Your task to perform on an android device: open chrome privacy settings Image 0: 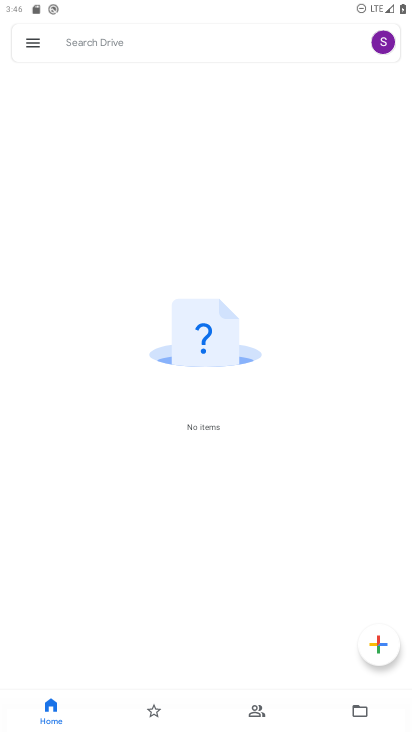
Step 0: press home button
Your task to perform on an android device: open chrome privacy settings Image 1: 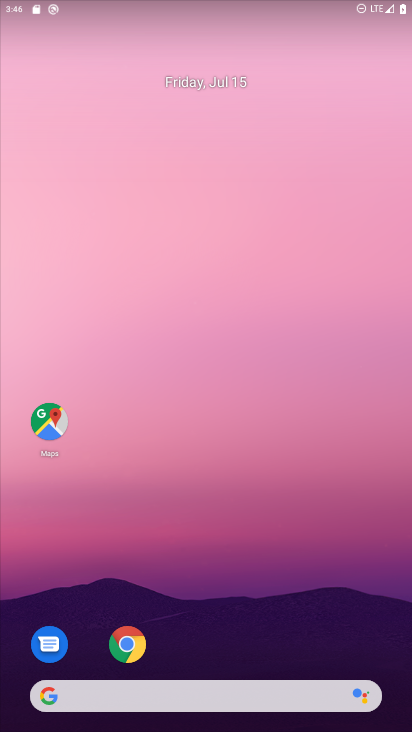
Step 1: drag from (59, 509) to (291, 3)
Your task to perform on an android device: open chrome privacy settings Image 2: 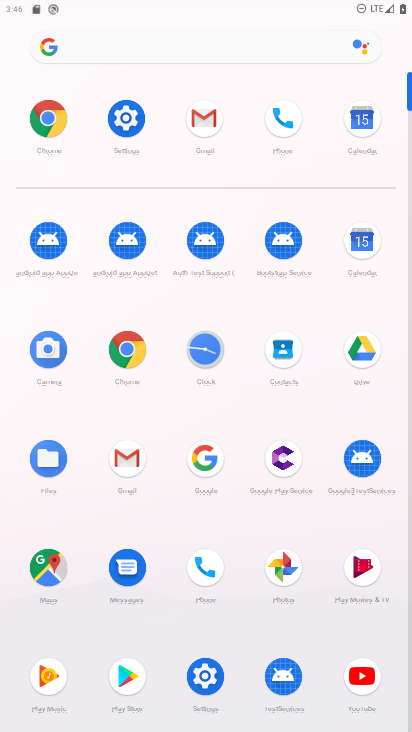
Step 2: click (48, 115)
Your task to perform on an android device: open chrome privacy settings Image 3: 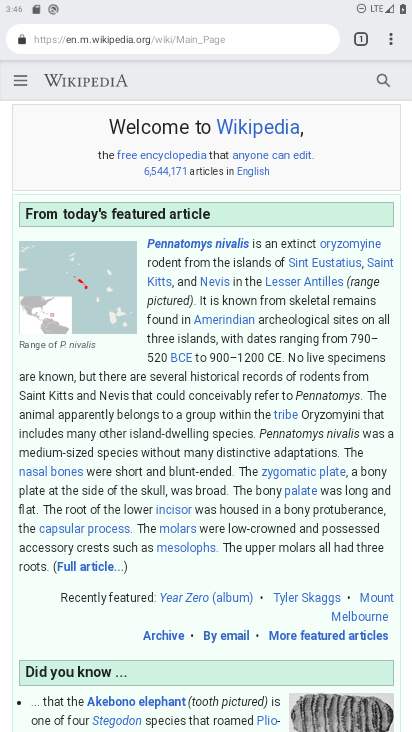
Step 3: click (390, 36)
Your task to perform on an android device: open chrome privacy settings Image 4: 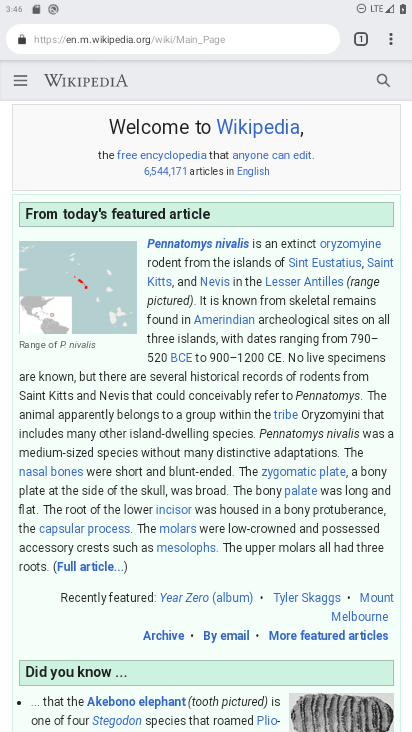
Step 4: click (386, 38)
Your task to perform on an android device: open chrome privacy settings Image 5: 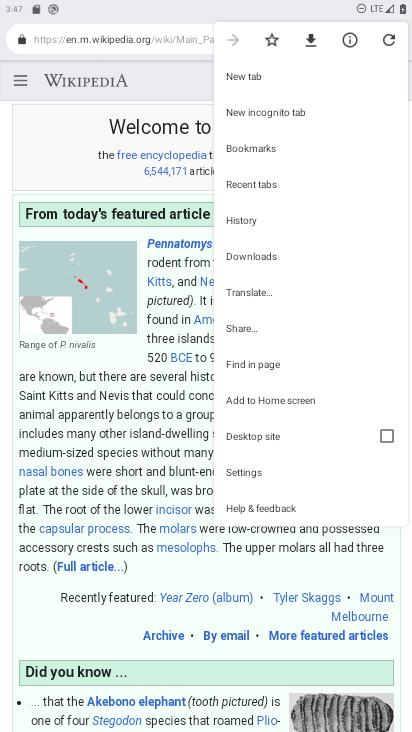
Step 5: click (239, 466)
Your task to perform on an android device: open chrome privacy settings Image 6: 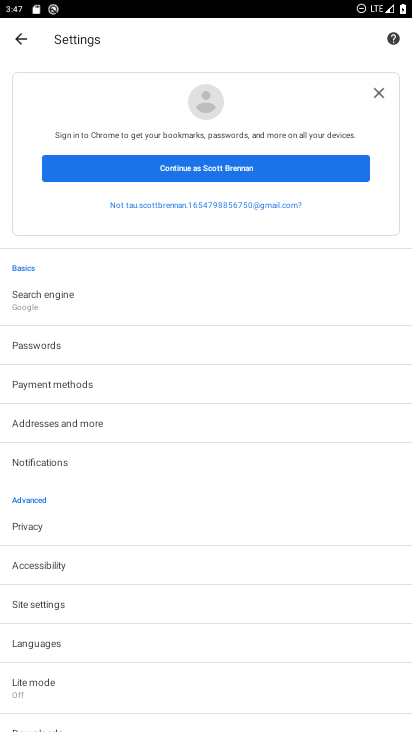
Step 6: click (28, 517)
Your task to perform on an android device: open chrome privacy settings Image 7: 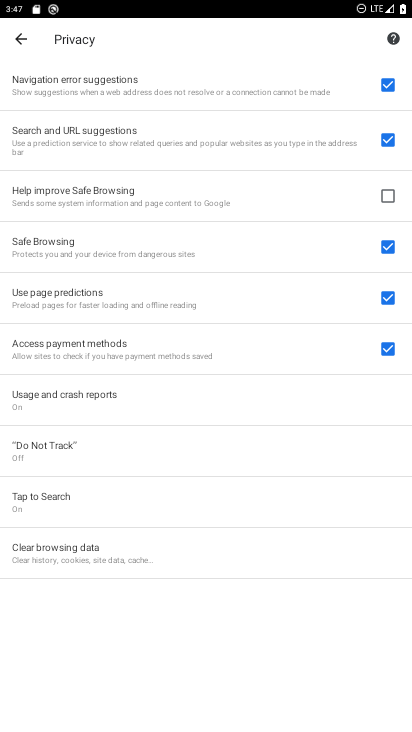
Step 7: task complete